Your task to perform on an android device: turn smart compose on in the gmail app Image 0: 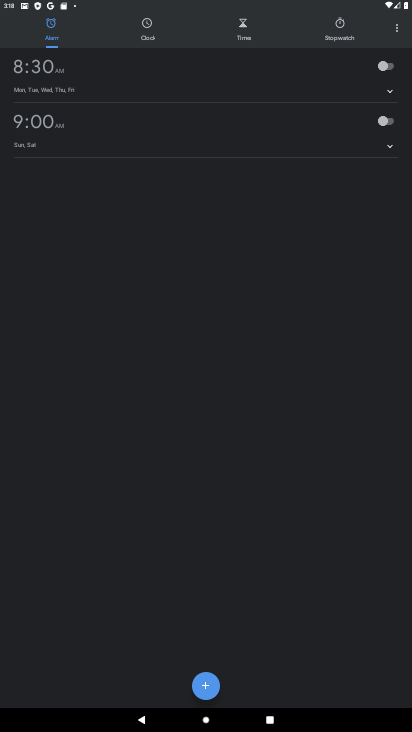
Step 0: press home button
Your task to perform on an android device: turn smart compose on in the gmail app Image 1: 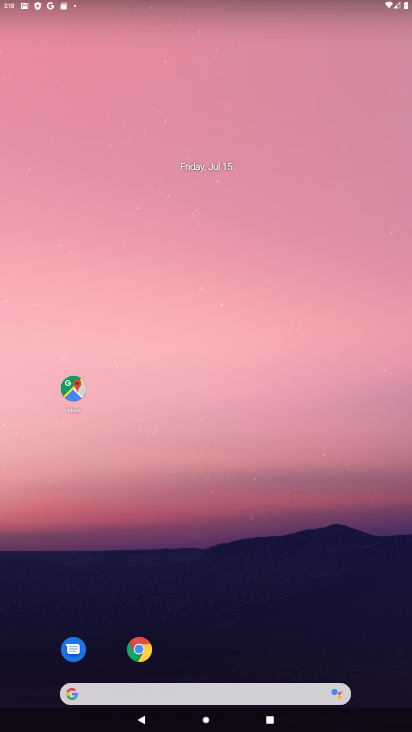
Step 1: drag from (219, 611) to (219, 208)
Your task to perform on an android device: turn smart compose on in the gmail app Image 2: 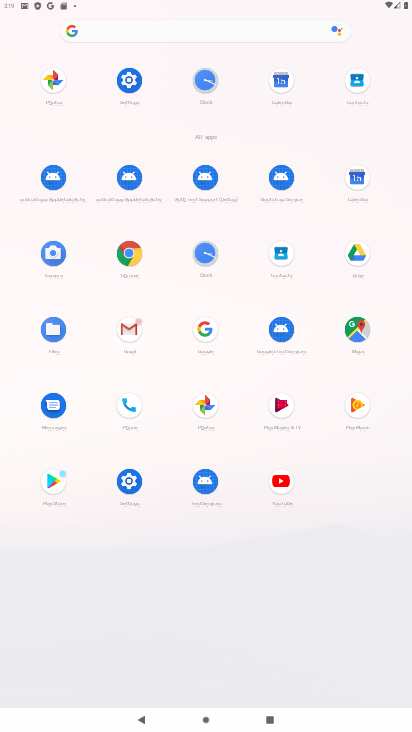
Step 2: click (133, 331)
Your task to perform on an android device: turn smart compose on in the gmail app Image 3: 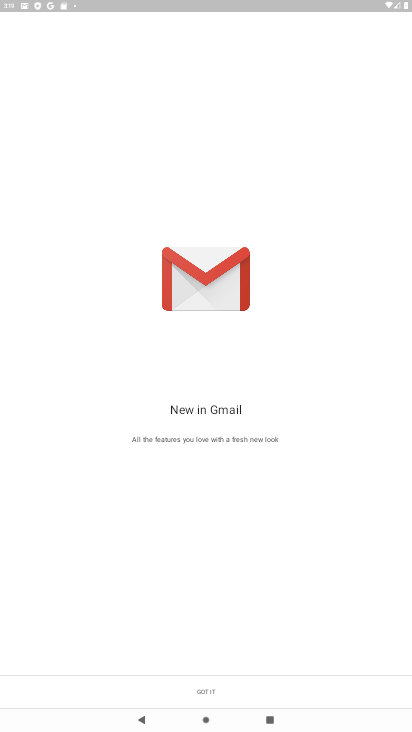
Step 3: click (225, 685)
Your task to perform on an android device: turn smart compose on in the gmail app Image 4: 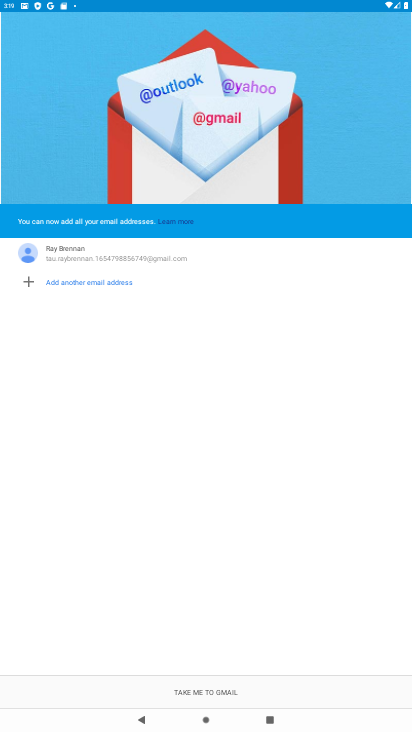
Step 4: click (225, 685)
Your task to perform on an android device: turn smart compose on in the gmail app Image 5: 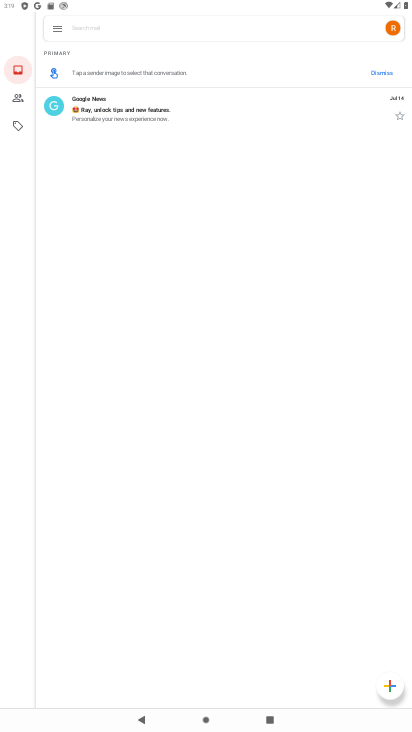
Step 5: click (54, 30)
Your task to perform on an android device: turn smart compose on in the gmail app Image 6: 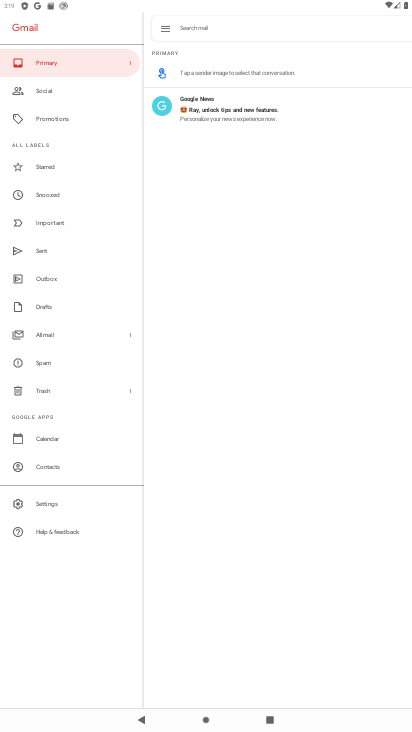
Step 6: click (47, 505)
Your task to perform on an android device: turn smart compose on in the gmail app Image 7: 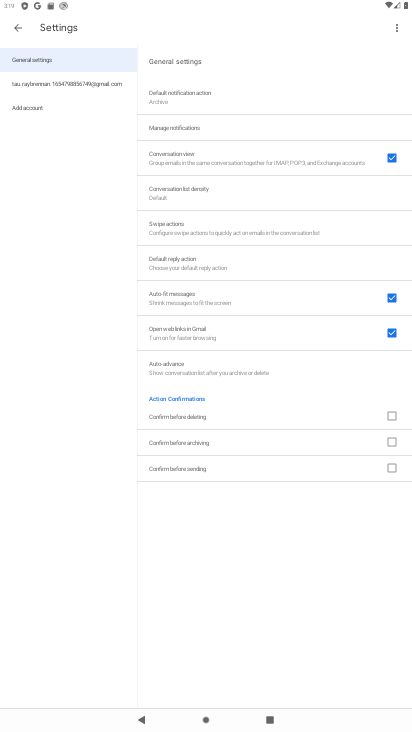
Step 7: click (61, 86)
Your task to perform on an android device: turn smart compose on in the gmail app Image 8: 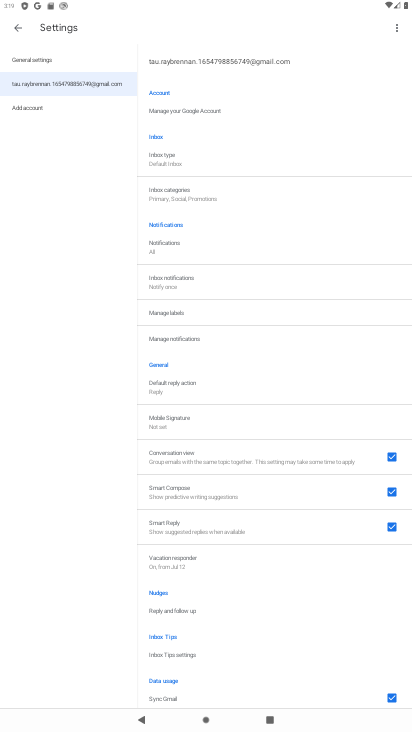
Step 8: task complete